Your task to perform on an android device: What's the weather going to be tomorrow? Image 0: 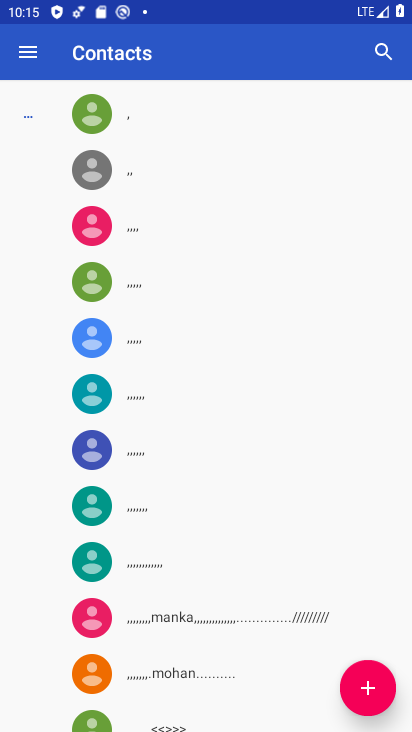
Step 0: press home button
Your task to perform on an android device: What's the weather going to be tomorrow? Image 1: 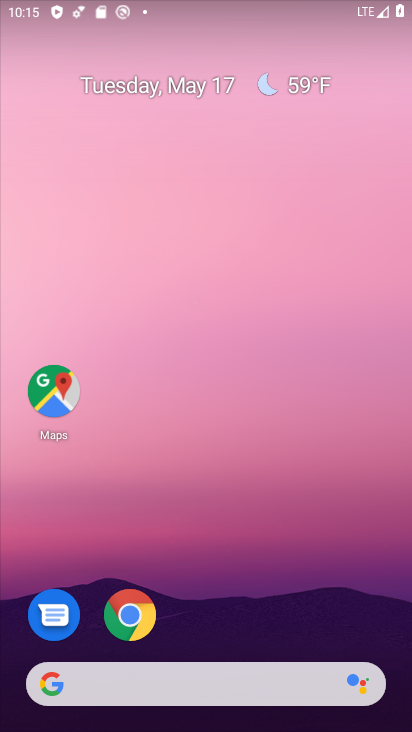
Step 1: click (301, 80)
Your task to perform on an android device: What's the weather going to be tomorrow? Image 2: 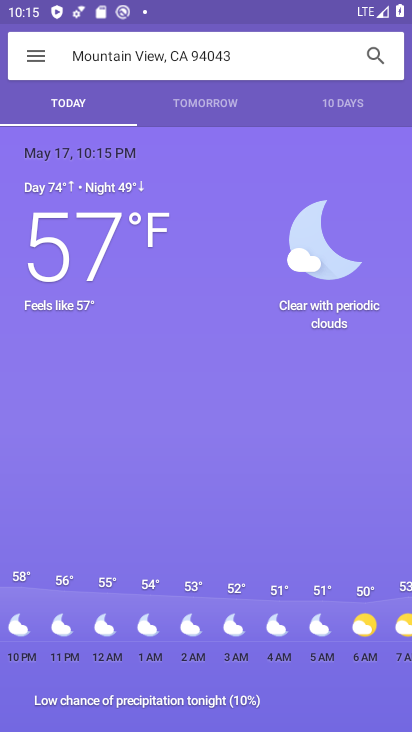
Step 2: click (216, 101)
Your task to perform on an android device: What's the weather going to be tomorrow? Image 3: 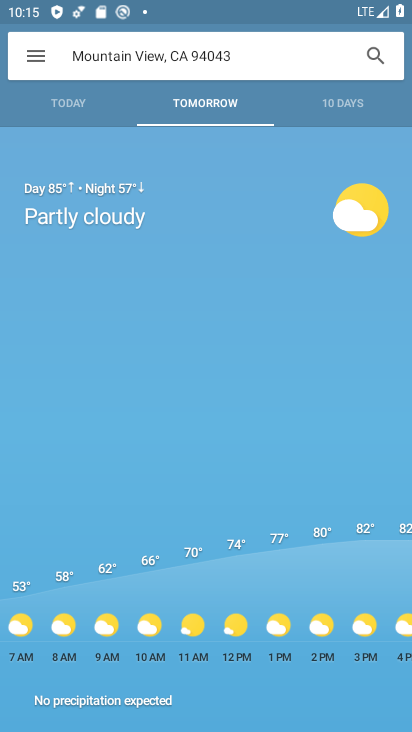
Step 3: task complete